Your task to perform on an android device: Install the Instagram app Image 0: 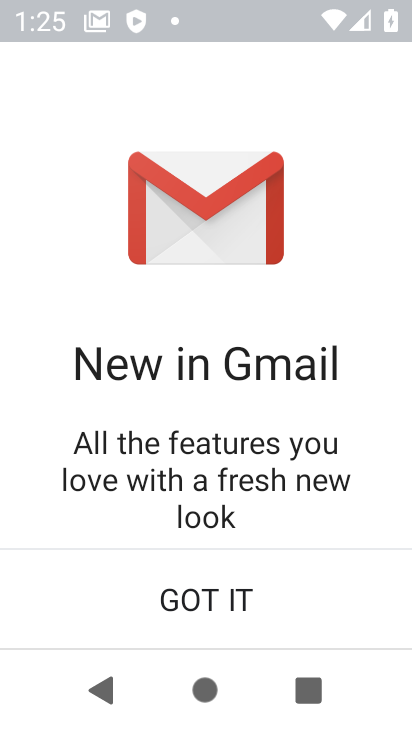
Step 0: press home button
Your task to perform on an android device: Install the Instagram app Image 1: 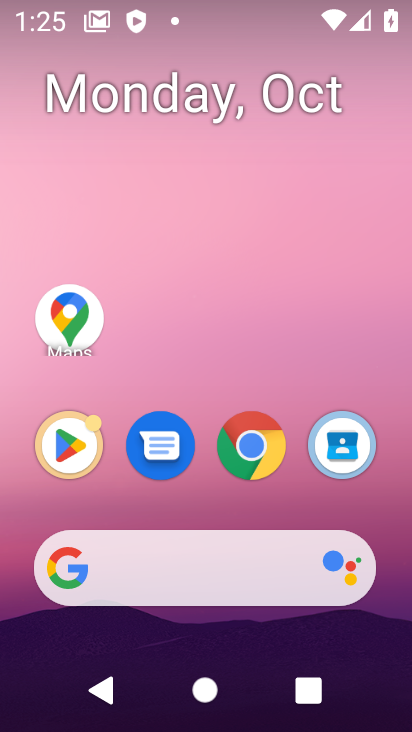
Step 1: drag from (211, 490) to (231, 68)
Your task to perform on an android device: Install the Instagram app Image 2: 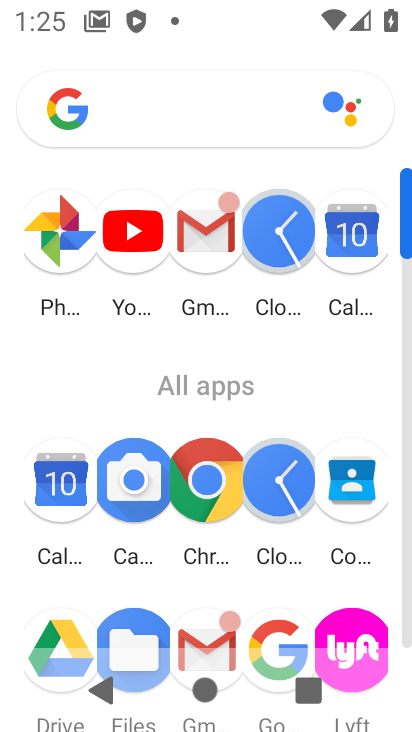
Step 2: drag from (164, 401) to (154, 96)
Your task to perform on an android device: Install the Instagram app Image 3: 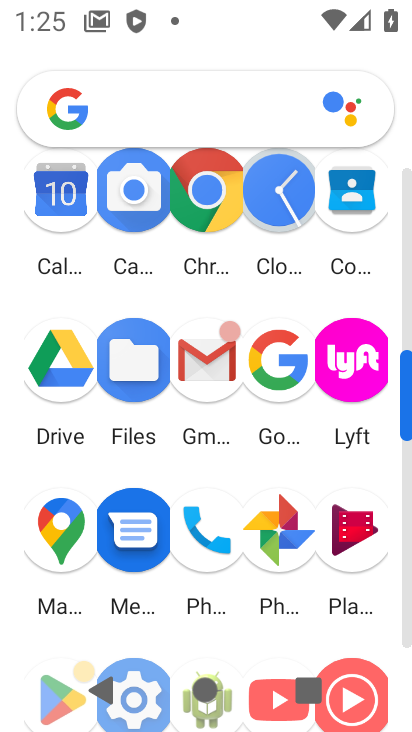
Step 3: drag from (153, 474) to (171, 174)
Your task to perform on an android device: Install the Instagram app Image 4: 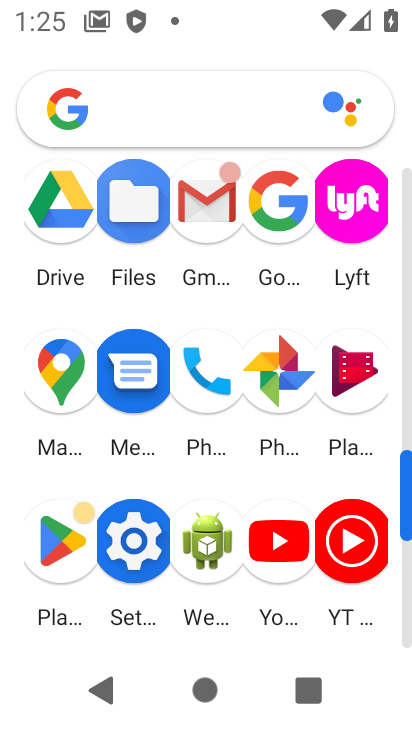
Step 4: click (48, 517)
Your task to perform on an android device: Install the Instagram app Image 5: 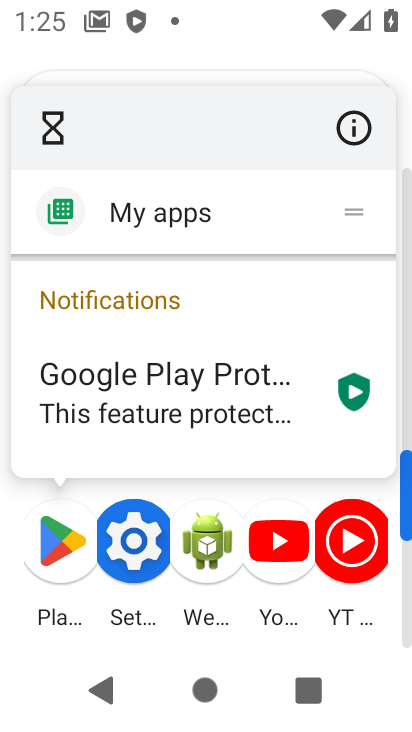
Step 5: click (67, 541)
Your task to perform on an android device: Install the Instagram app Image 6: 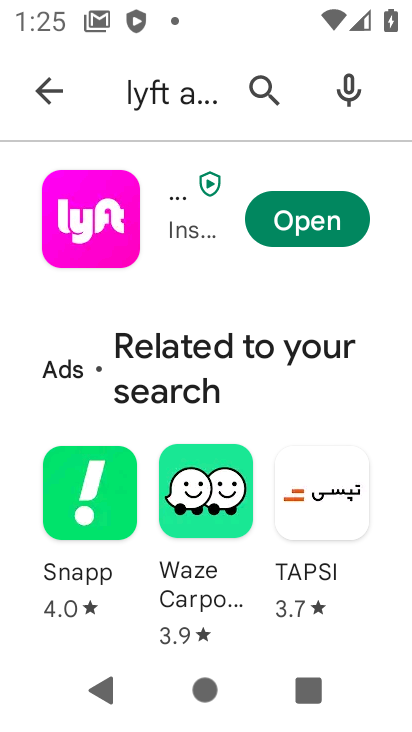
Step 6: click (278, 86)
Your task to perform on an android device: Install the Instagram app Image 7: 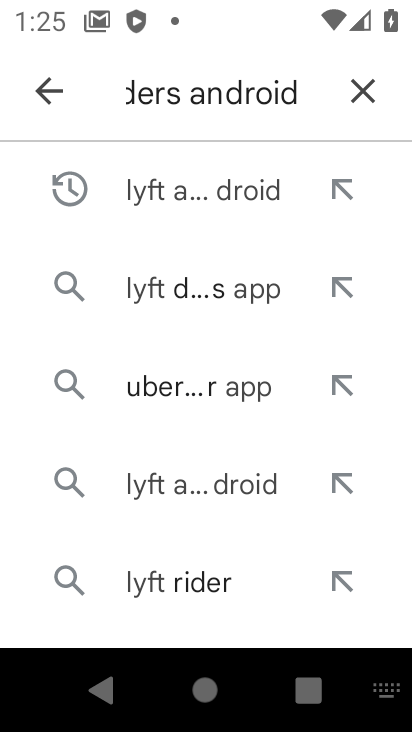
Step 7: click (361, 79)
Your task to perform on an android device: Install the Instagram app Image 8: 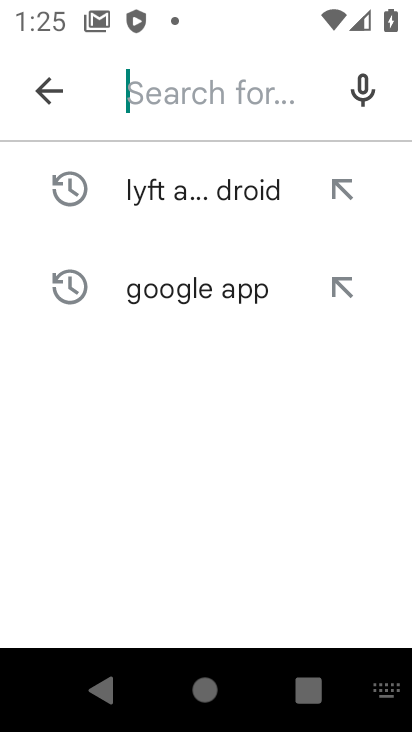
Step 8: type "Instagram app"
Your task to perform on an android device: Install the Instagram app Image 9: 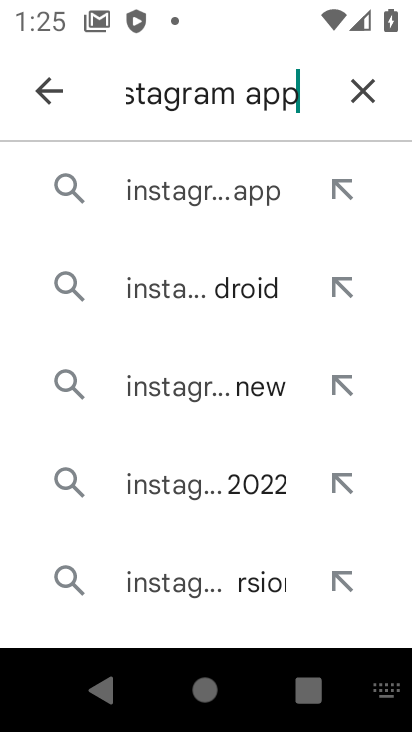
Step 9: type ""
Your task to perform on an android device: Install the Instagram app Image 10: 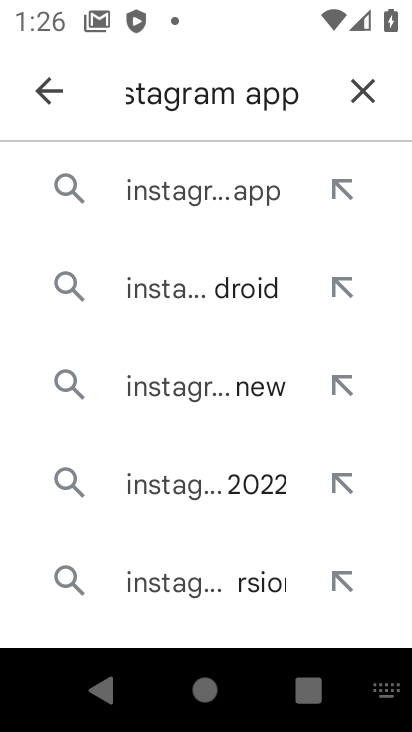
Step 10: click (253, 187)
Your task to perform on an android device: Install the Instagram app Image 11: 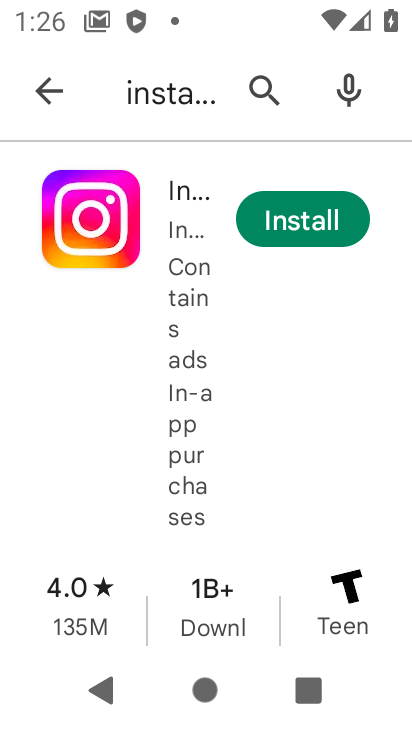
Step 11: click (317, 222)
Your task to perform on an android device: Install the Instagram app Image 12: 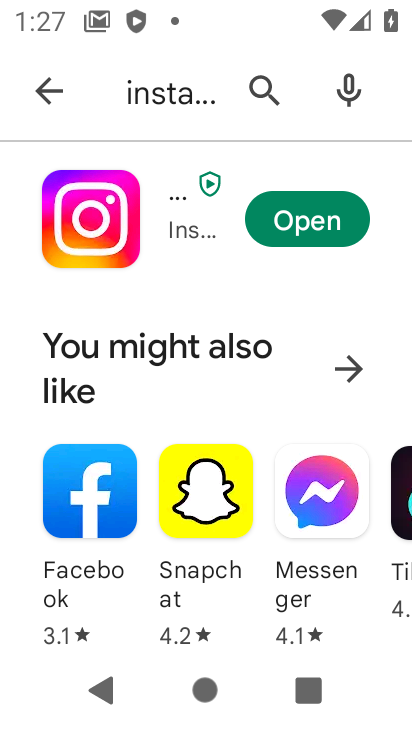
Step 12: task complete